Your task to perform on an android device: Open Maps and search for coffee Image 0: 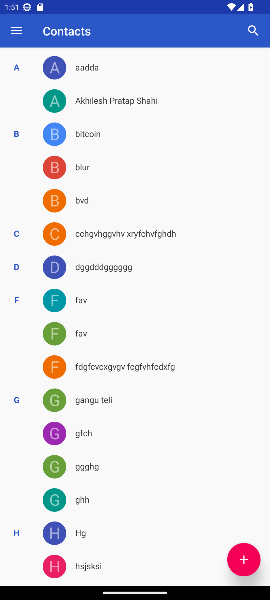
Step 0: press home button
Your task to perform on an android device: Open Maps and search for coffee Image 1: 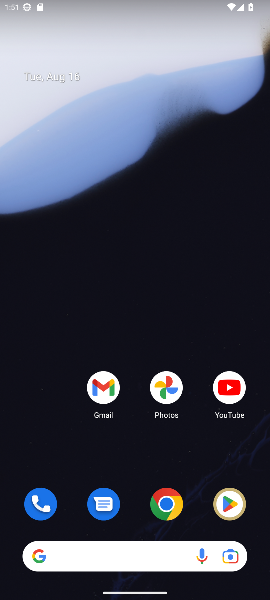
Step 1: drag from (131, 511) to (78, 30)
Your task to perform on an android device: Open Maps and search for coffee Image 2: 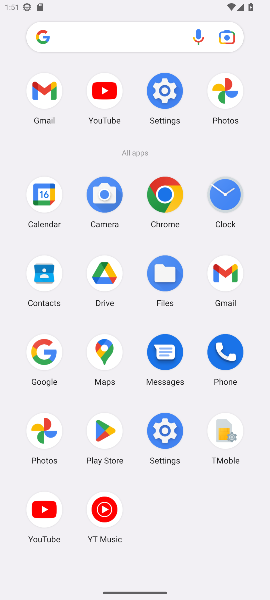
Step 2: click (103, 348)
Your task to perform on an android device: Open Maps and search for coffee Image 3: 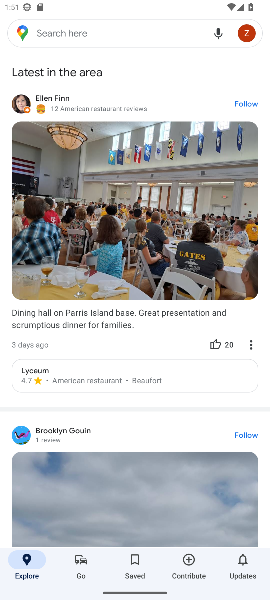
Step 3: click (75, 29)
Your task to perform on an android device: Open Maps and search for coffee Image 4: 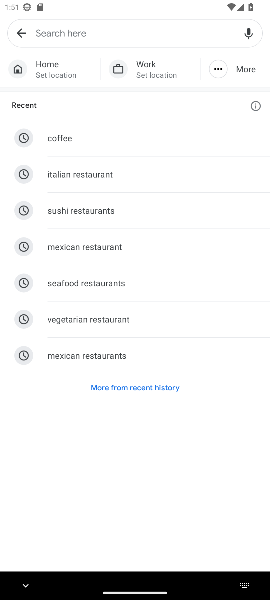
Step 4: click (57, 136)
Your task to perform on an android device: Open Maps and search for coffee Image 5: 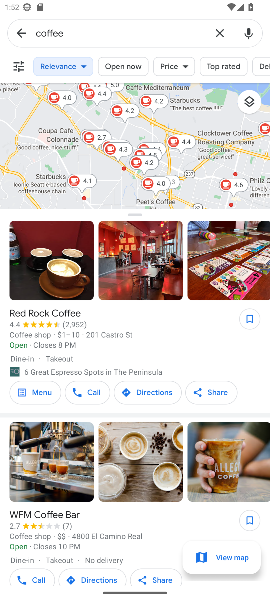
Step 5: task complete